Your task to perform on an android device: turn off notifications settings in the gmail app Image 0: 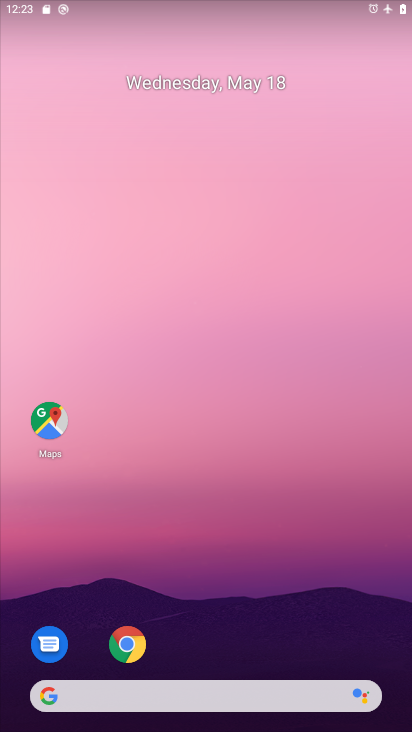
Step 0: drag from (212, 658) to (235, 52)
Your task to perform on an android device: turn off notifications settings in the gmail app Image 1: 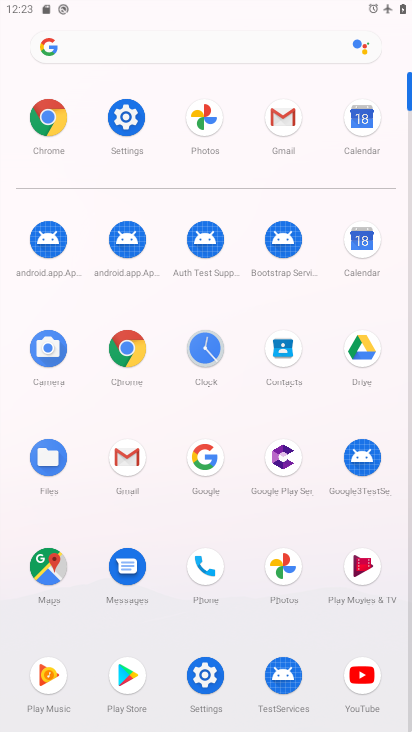
Step 1: click (120, 112)
Your task to perform on an android device: turn off notifications settings in the gmail app Image 2: 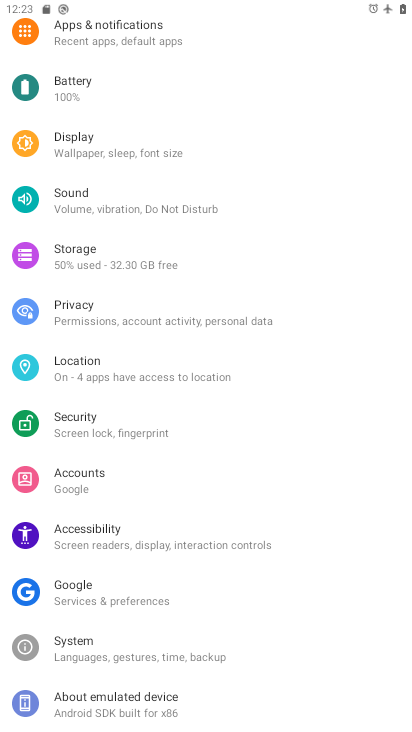
Step 2: press home button
Your task to perform on an android device: turn off notifications settings in the gmail app Image 3: 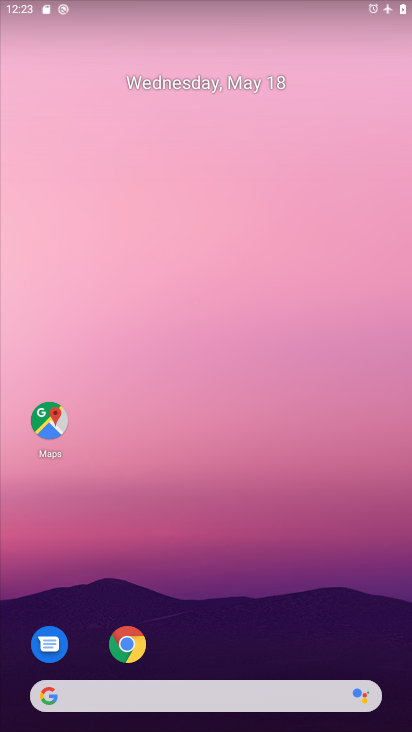
Step 3: drag from (197, 644) to (276, 244)
Your task to perform on an android device: turn off notifications settings in the gmail app Image 4: 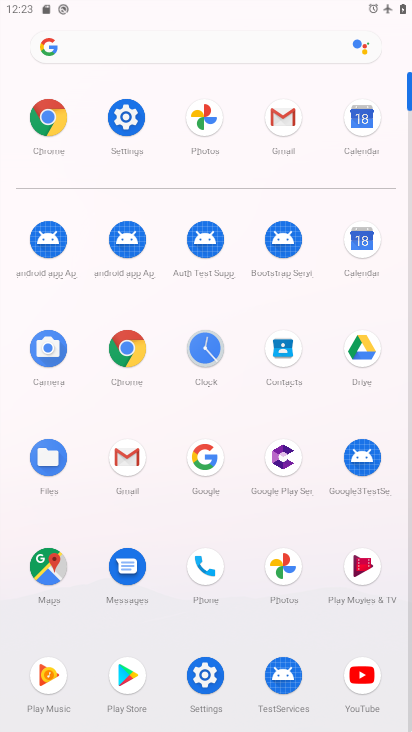
Step 4: click (122, 456)
Your task to perform on an android device: turn off notifications settings in the gmail app Image 5: 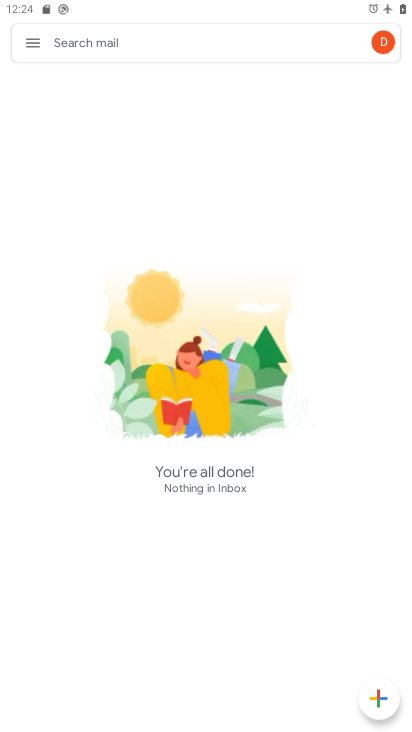
Step 5: click (30, 36)
Your task to perform on an android device: turn off notifications settings in the gmail app Image 6: 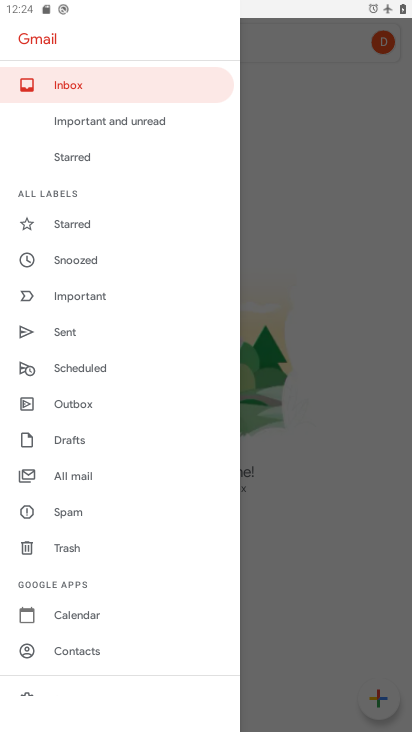
Step 6: drag from (86, 607) to (87, 316)
Your task to perform on an android device: turn off notifications settings in the gmail app Image 7: 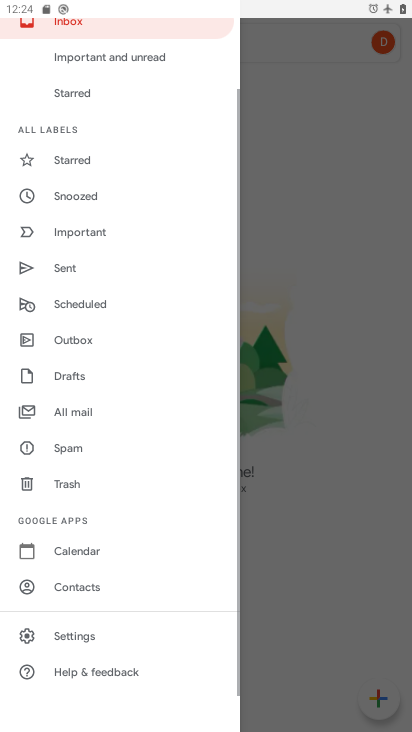
Step 7: drag from (98, 205) to (106, 155)
Your task to perform on an android device: turn off notifications settings in the gmail app Image 8: 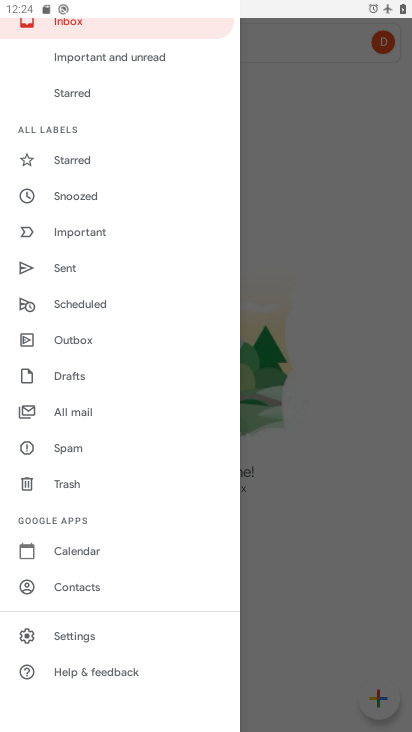
Step 8: click (103, 634)
Your task to perform on an android device: turn off notifications settings in the gmail app Image 9: 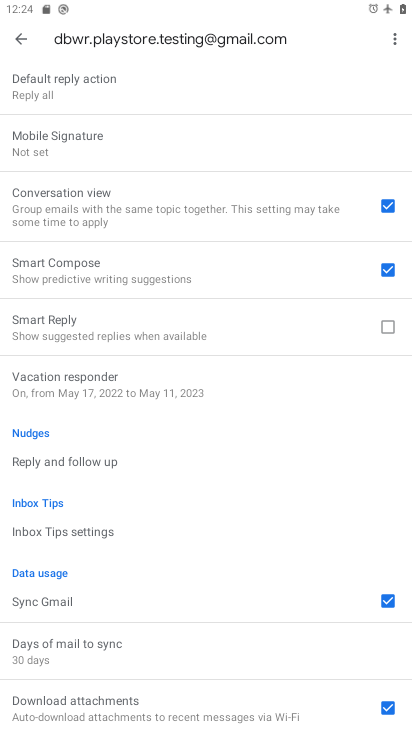
Step 9: click (13, 43)
Your task to perform on an android device: turn off notifications settings in the gmail app Image 10: 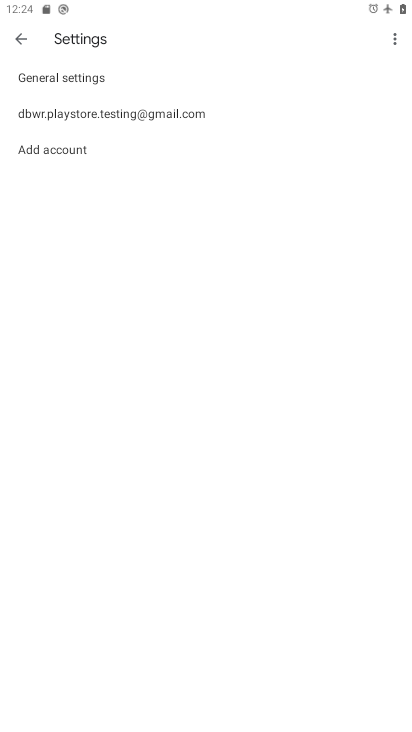
Step 10: click (92, 73)
Your task to perform on an android device: turn off notifications settings in the gmail app Image 11: 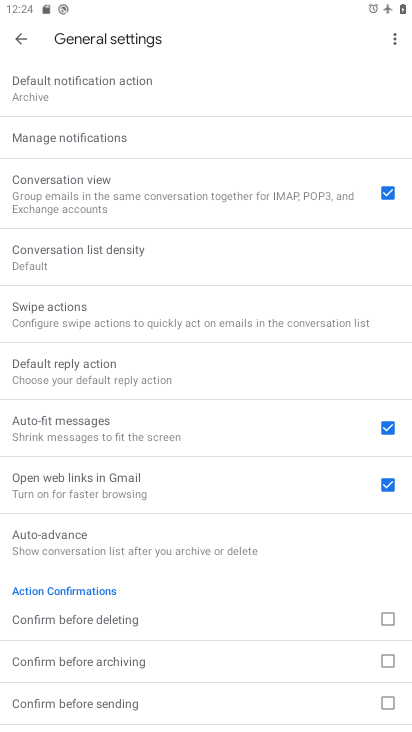
Step 11: click (111, 132)
Your task to perform on an android device: turn off notifications settings in the gmail app Image 12: 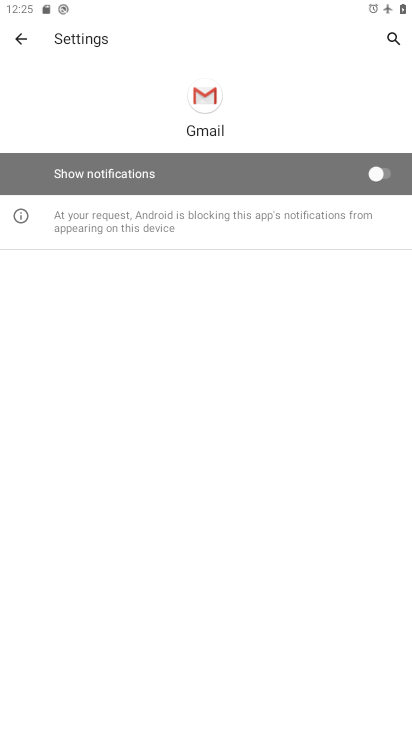
Step 12: task complete